Your task to perform on an android device: toggle data saver in the chrome app Image 0: 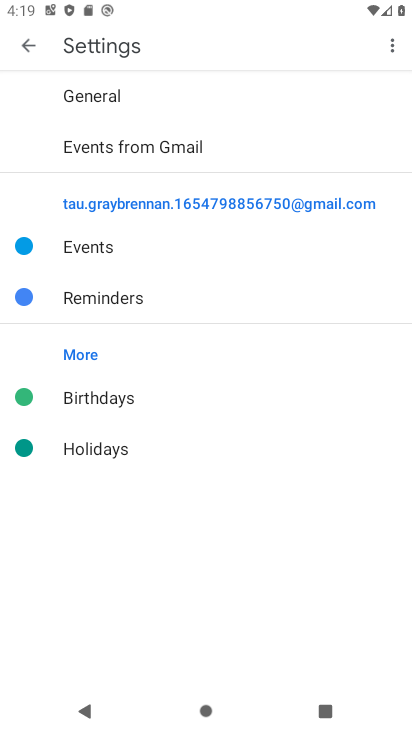
Step 0: press home button
Your task to perform on an android device: toggle data saver in the chrome app Image 1: 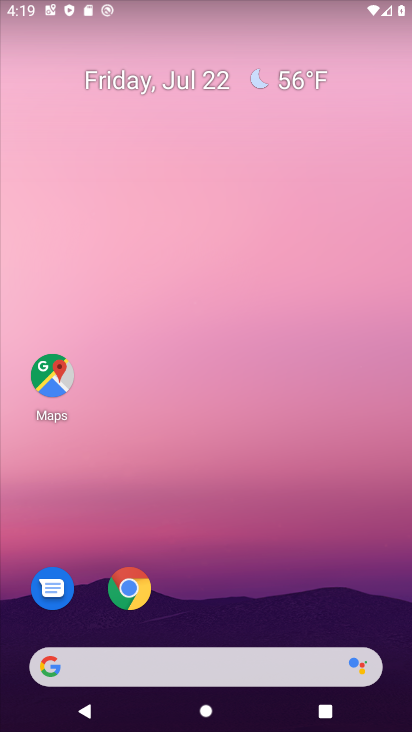
Step 1: click (135, 585)
Your task to perform on an android device: toggle data saver in the chrome app Image 2: 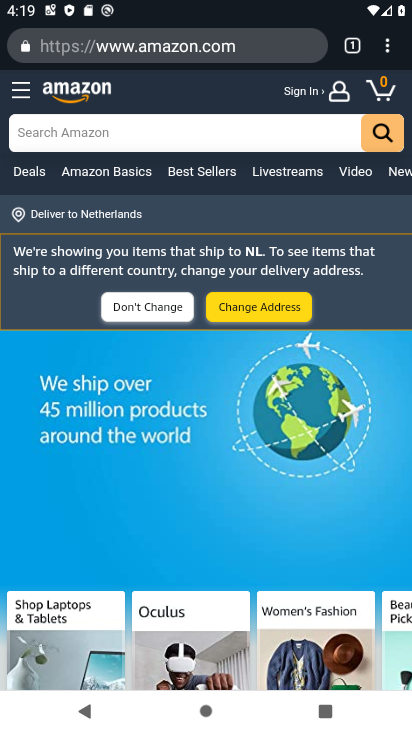
Step 2: click (396, 44)
Your task to perform on an android device: toggle data saver in the chrome app Image 3: 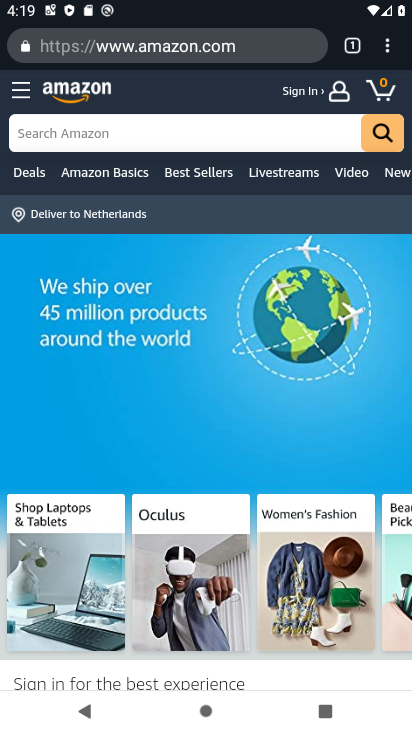
Step 3: click (388, 56)
Your task to perform on an android device: toggle data saver in the chrome app Image 4: 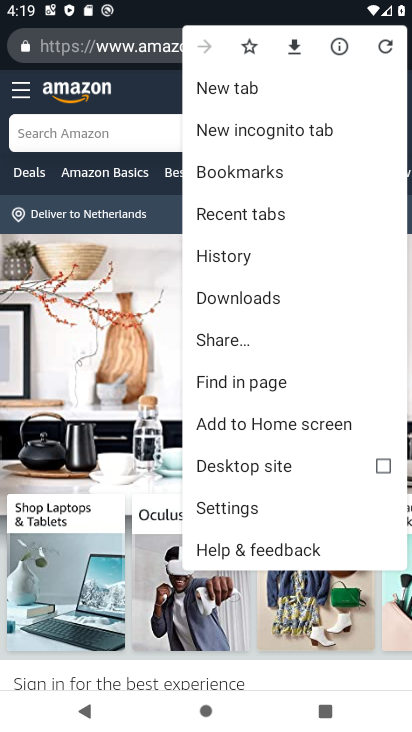
Step 4: click (253, 512)
Your task to perform on an android device: toggle data saver in the chrome app Image 5: 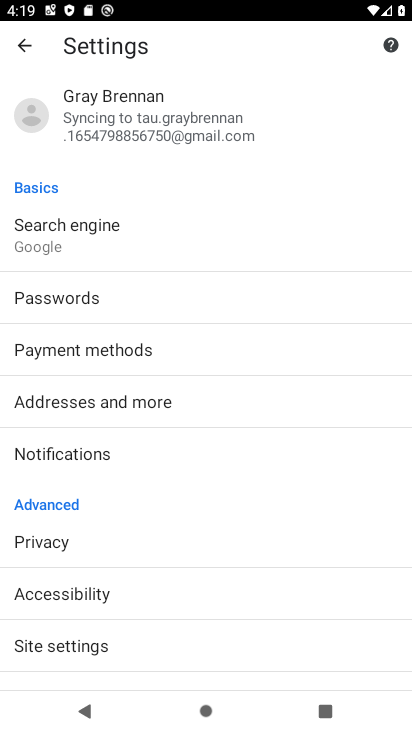
Step 5: drag from (164, 628) to (201, 177)
Your task to perform on an android device: toggle data saver in the chrome app Image 6: 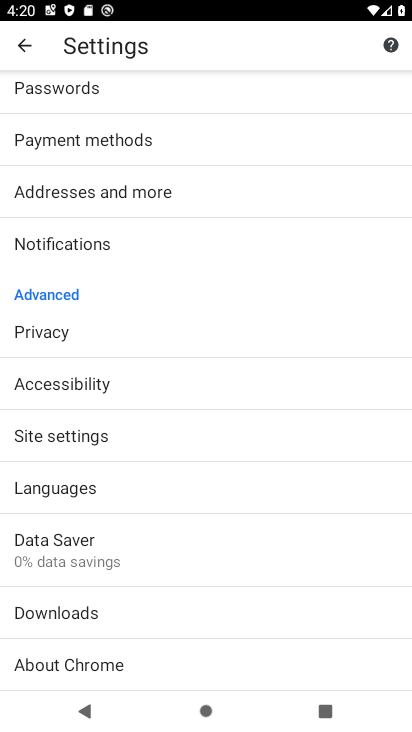
Step 6: click (115, 561)
Your task to perform on an android device: toggle data saver in the chrome app Image 7: 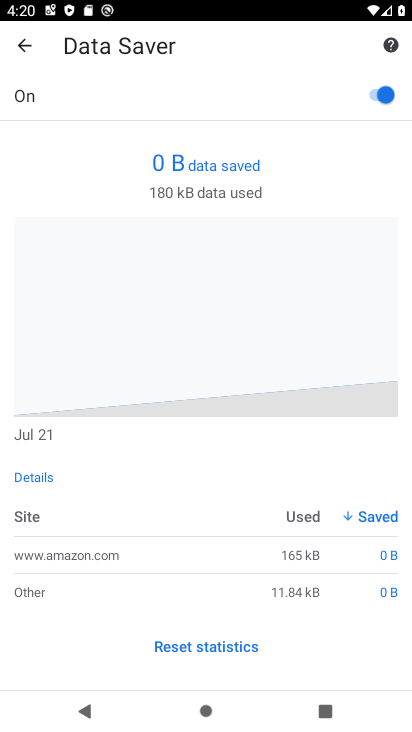
Step 7: click (369, 108)
Your task to perform on an android device: toggle data saver in the chrome app Image 8: 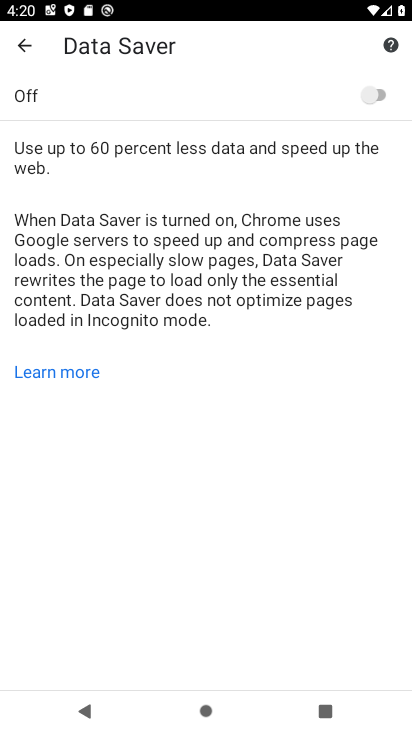
Step 8: task complete